Your task to perform on an android device: Open sound settings Image 0: 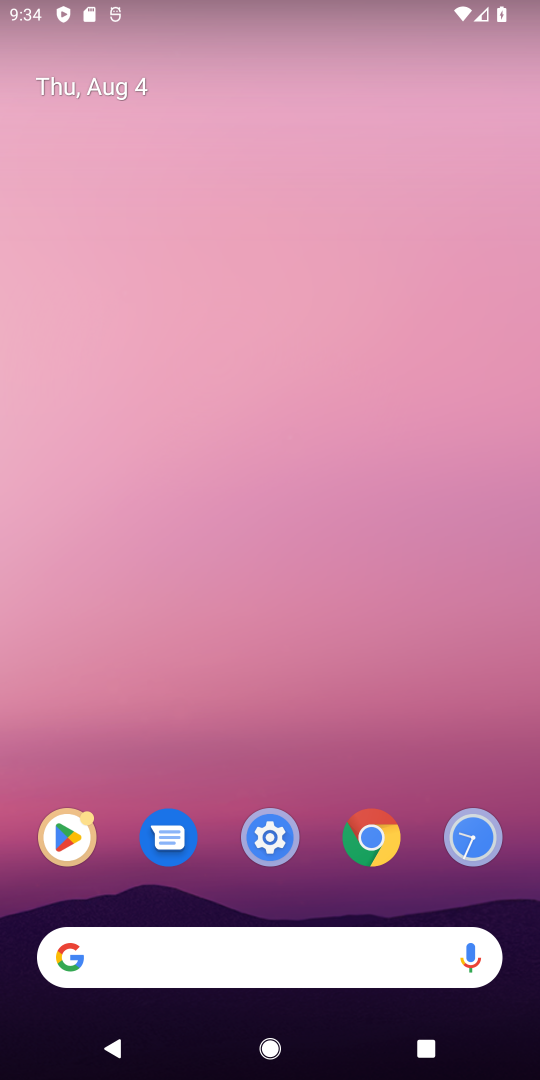
Step 0: drag from (421, 835) to (205, 88)
Your task to perform on an android device: Open sound settings Image 1: 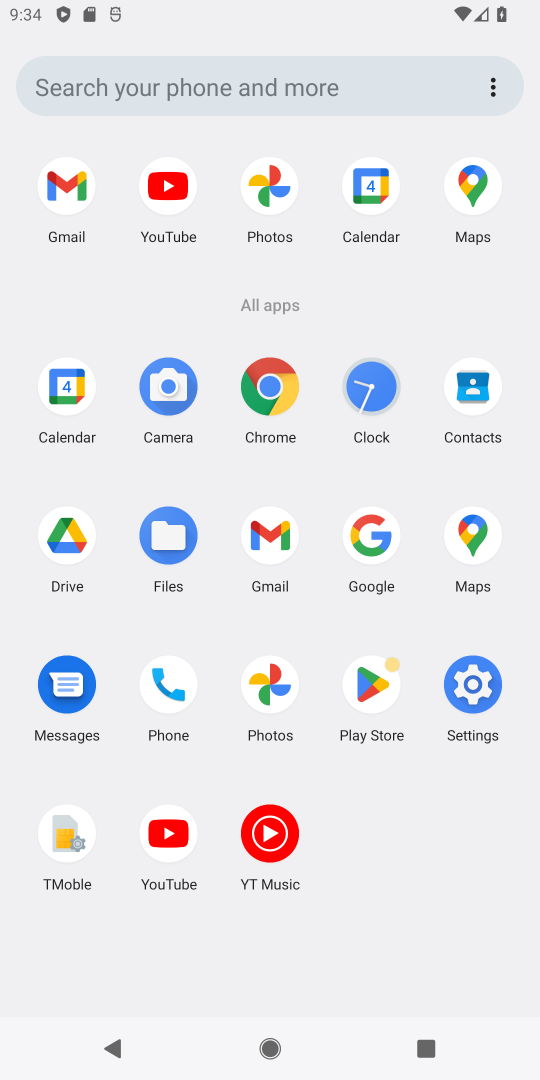
Step 1: click (477, 689)
Your task to perform on an android device: Open sound settings Image 2: 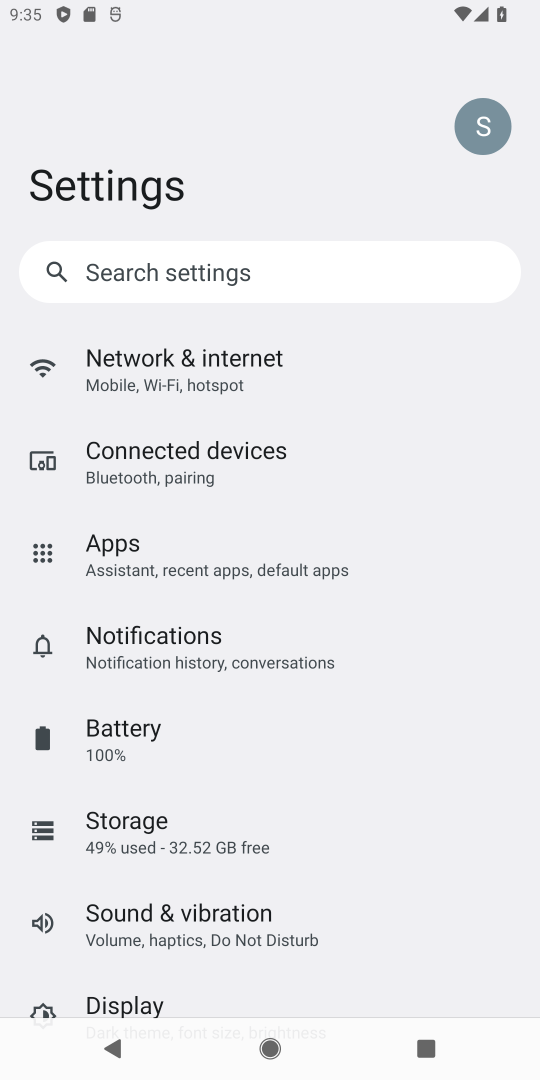
Step 2: drag from (172, 956) to (228, 190)
Your task to perform on an android device: Open sound settings Image 3: 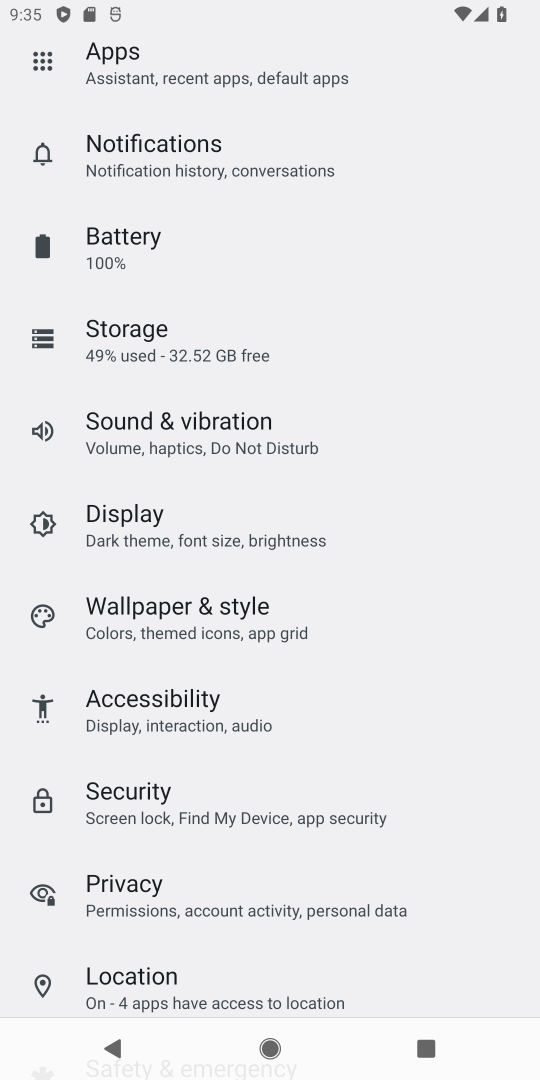
Step 3: drag from (169, 910) to (131, 264)
Your task to perform on an android device: Open sound settings Image 4: 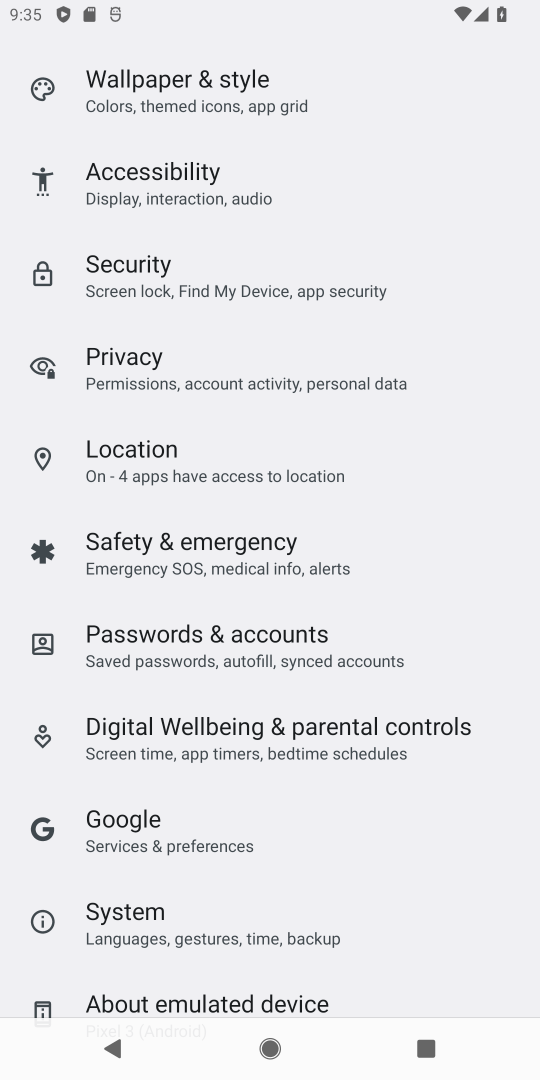
Step 4: drag from (161, 125) to (194, 660)
Your task to perform on an android device: Open sound settings Image 5: 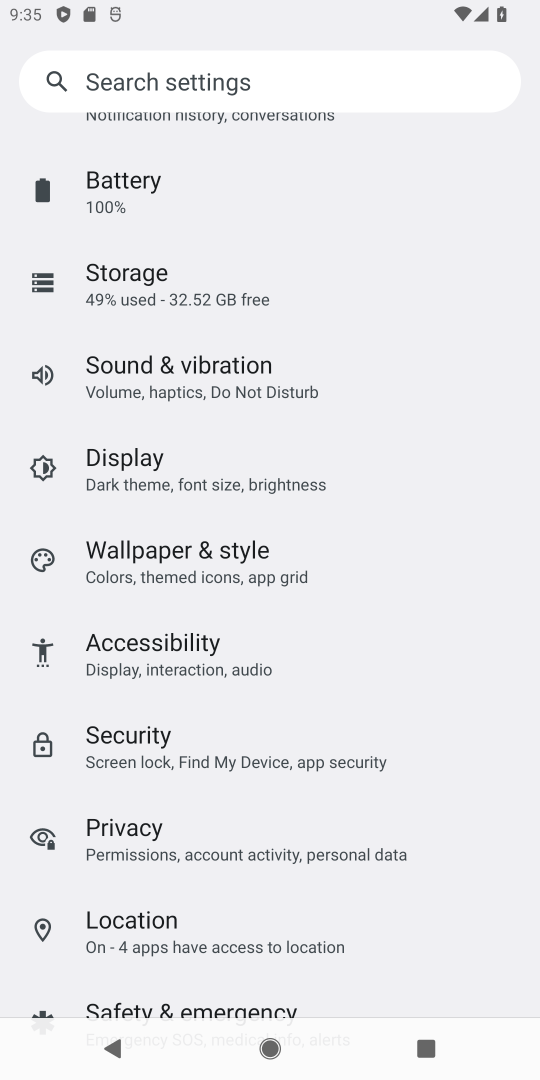
Step 5: click (133, 371)
Your task to perform on an android device: Open sound settings Image 6: 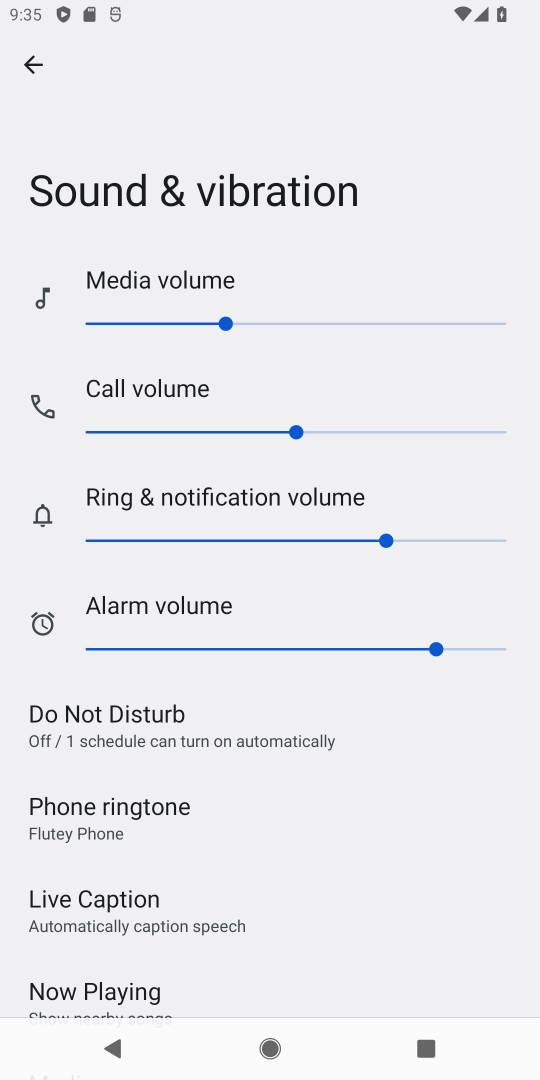
Step 6: task complete